Your task to perform on an android device: Add "lenovo thinkpad" to the cart on newegg.com Image 0: 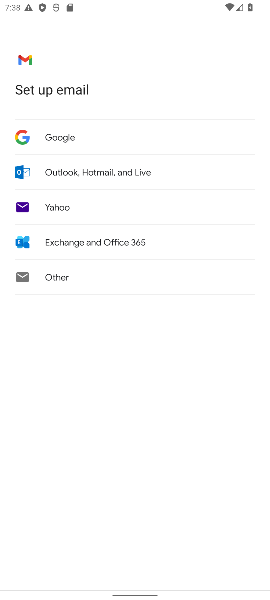
Step 0: press home button
Your task to perform on an android device: Add "lenovo thinkpad" to the cart on newegg.com Image 1: 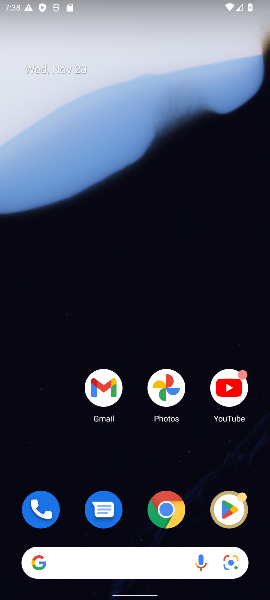
Step 1: click (159, 525)
Your task to perform on an android device: Add "lenovo thinkpad" to the cart on newegg.com Image 2: 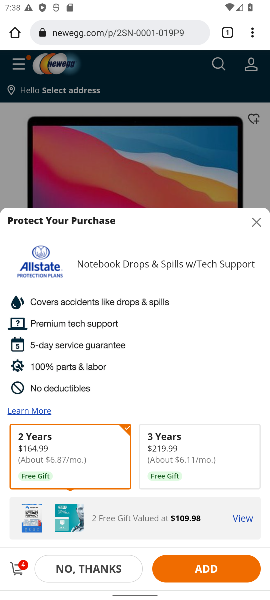
Step 2: click (258, 225)
Your task to perform on an android device: Add "lenovo thinkpad" to the cart on newegg.com Image 3: 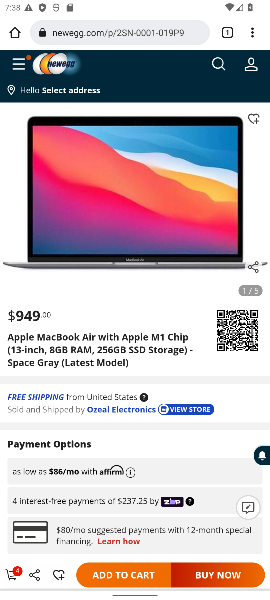
Step 3: click (218, 66)
Your task to perform on an android device: Add "lenovo thinkpad" to the cart on newegg.com Image 4: 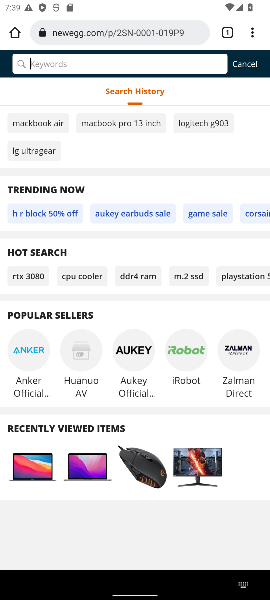
Step 4: type "lenovo thinkpad"
Your task to perform on an android device: Add "lenovo thinkpad" to the cart on newegg.com Image 5: 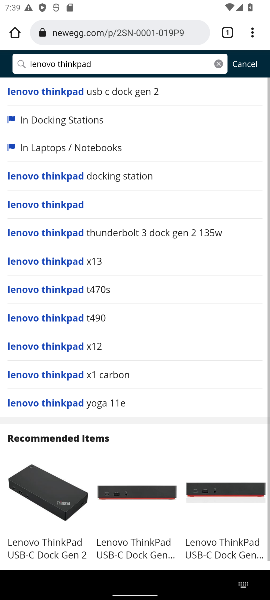
Step 5: press enter
Your task to perform on an android device: Add "lenovo thinkpad" to the cart on newegg.com Image 6: 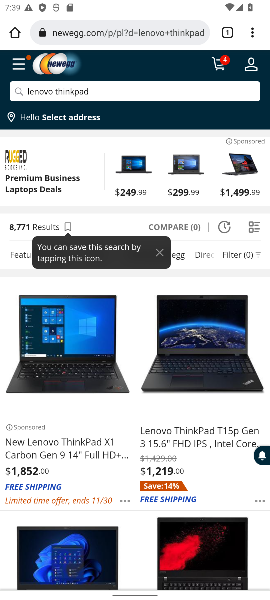
Step 6: click (85, 439)
Your task to perform on an android device: Add "lenovo thinkpad" to the cart on newegg.com Image 7: 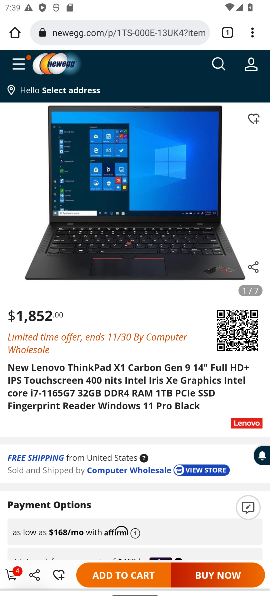
Step 7: click (119, 579)
Your task to perform on an android device: Add "lenovo thinkpad" to the cart on newegg.com Image 8: 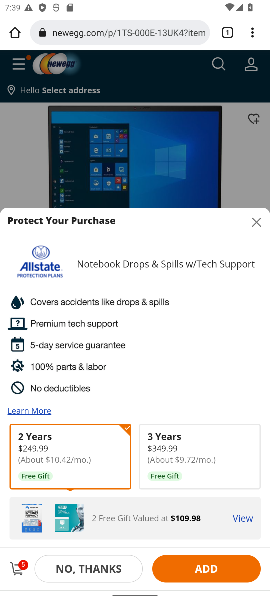
Step 8: task complete